Your task to perform on an android device: toggle airplane mode Image 0: 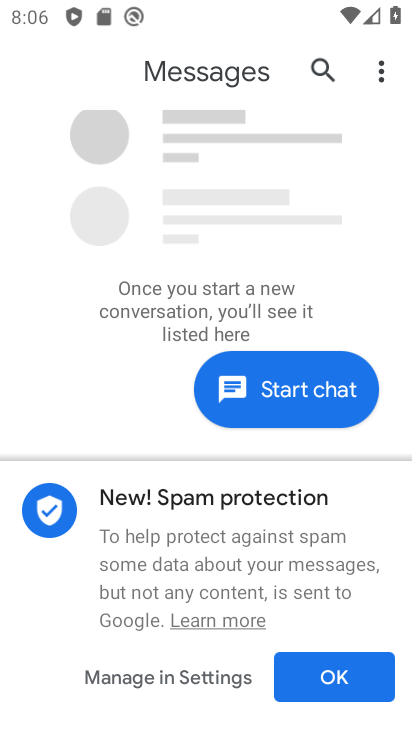
Step 0: press home button
Your task to perform on an android device: toggle airplane mode Image 1: 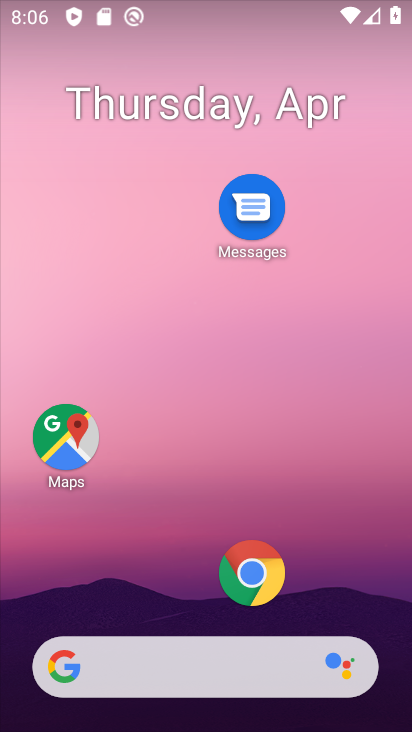
Step 1: drag from (199, 609) to (213, 178)
Your task to perform on an android device: toggle airplane mode Image 2: 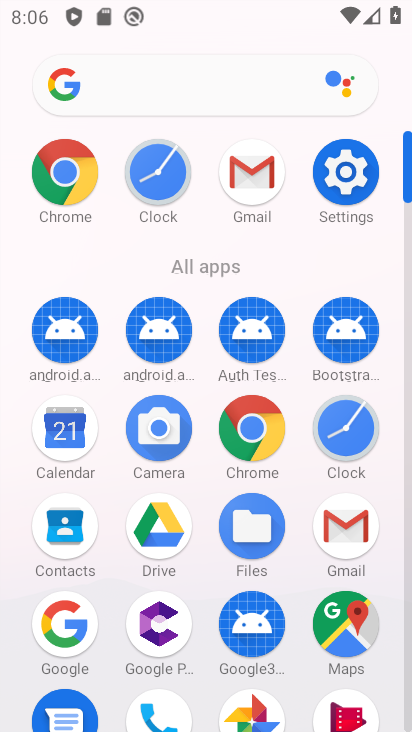
Step 2: drag from (232, 15) to (227, 490)
Your task to perform on an android device: toggle airplane mode Image 3: 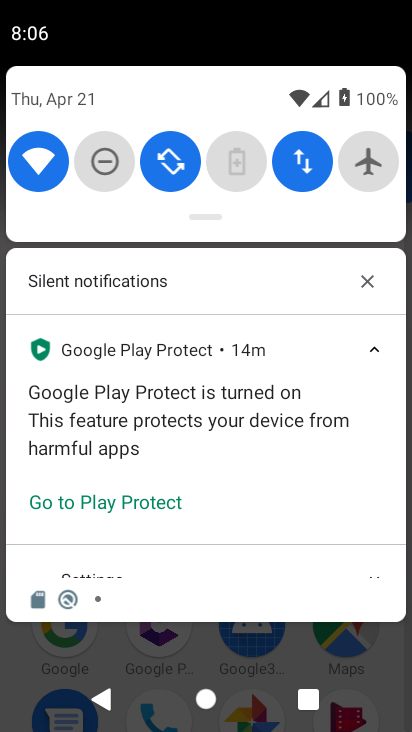
Step 3: click (369, 155)
Your task to perform on an android device: toggle airplane mode Image 4: 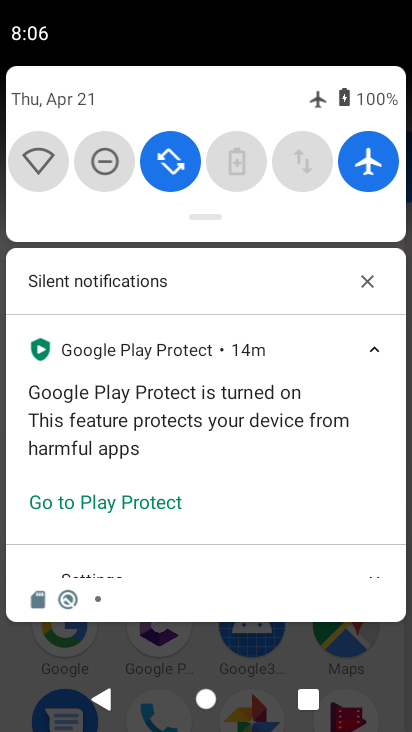
Step 4: task complete